Your task to perform on an android device: Open accessibility settings Image 0: 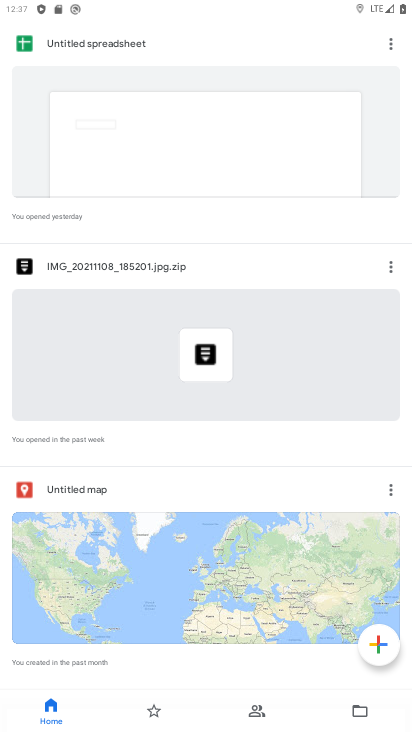
Step 0: press home button
Your task to perform on an android device: Open accessibility settings Image 1: 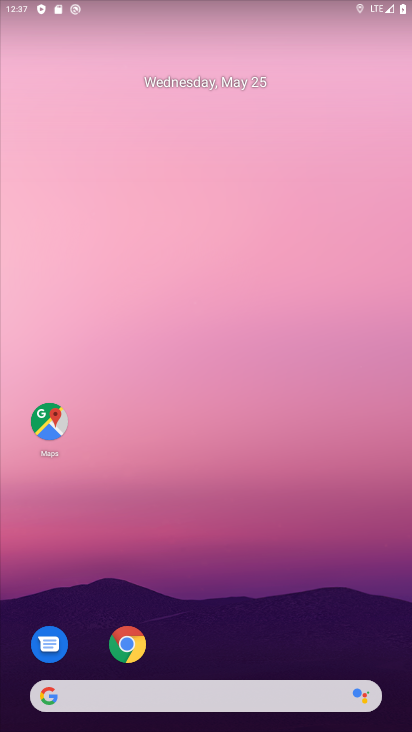
Step 1: drag from (237, 560) to (181, 140)
Your task to perform on an android device: Open accessibility settings Image 2: 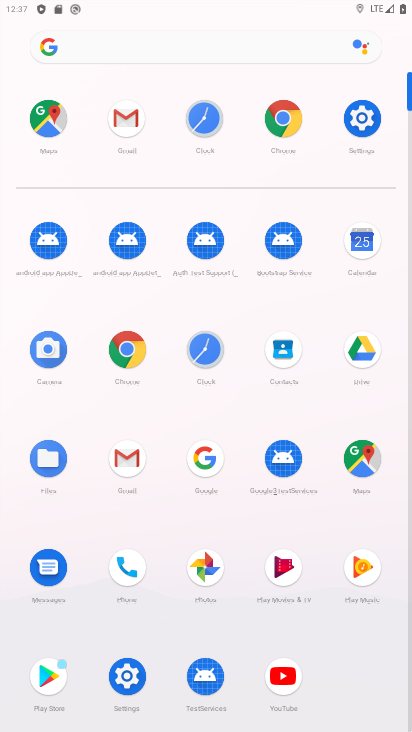
Step 2: click (367, 114)
Your task to perform on an android device: Open accessibility settings Image 3: 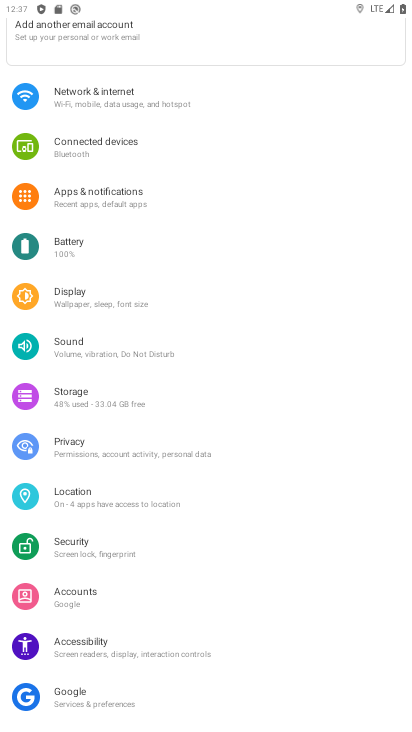
Step 3: click (84, 641)
Your task to perform on an android device: Open accessibility settings Image 4: 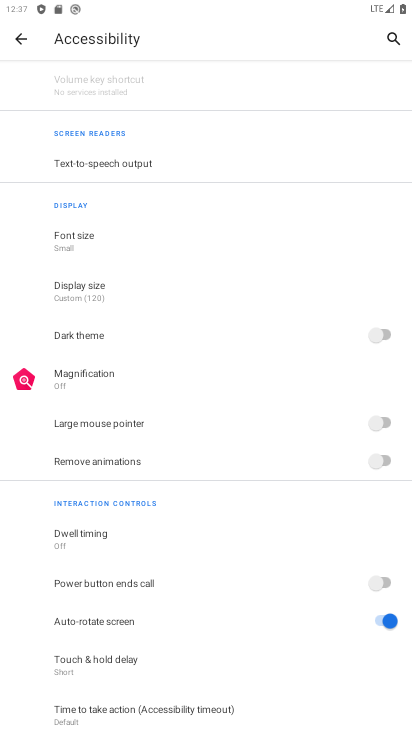
Step 4: task complete